Your task to perform on an android device: turn on wifi Image 0: 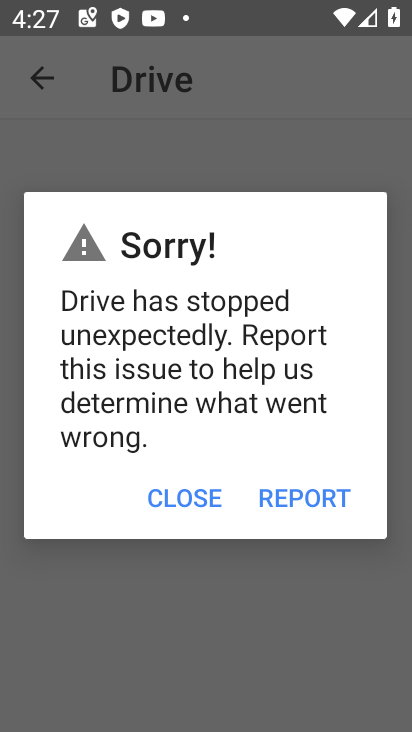
Step 0: press home button
Your task to perform on an android device: turn on wifi Image 1: 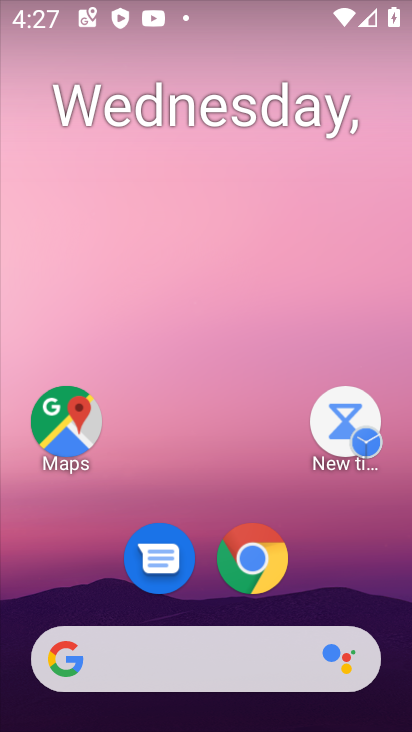
Step 1: drag from (337, 496) to (285, 160)
Your task to perform on an android device: turn on wifi Image 2: 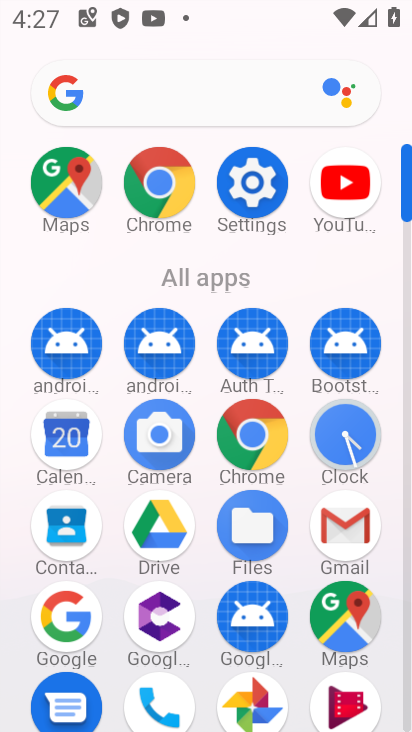
Step 2: click (248, 190)
Your task to perform on an android device: turn on wifi Image 3: 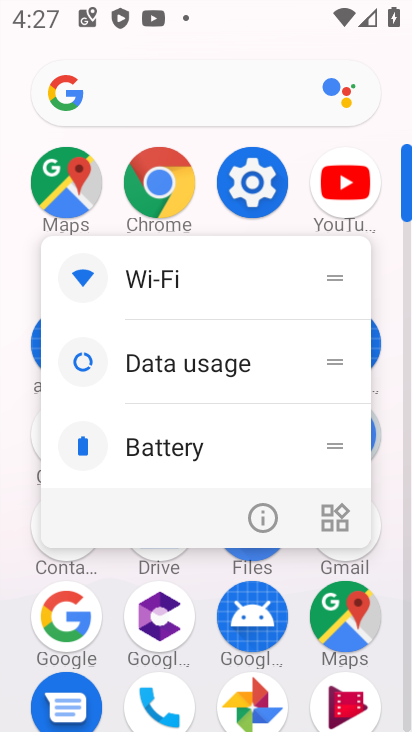
Step 3: click (246, 191)
Your task to perform on an android device: turn on wifi Image 4: 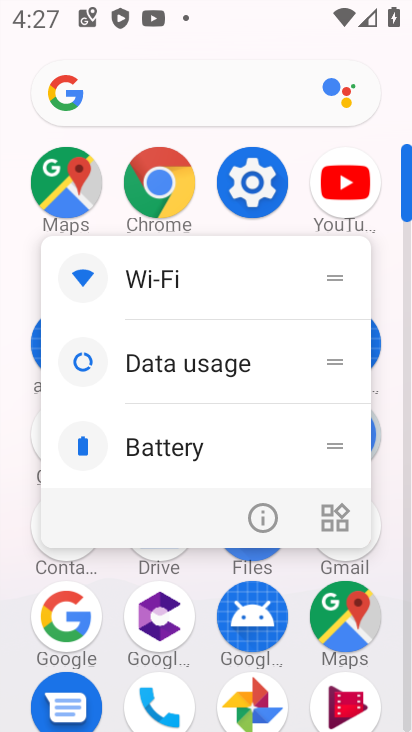
Step 4: click (257, 169)
Your task to perform on an android device: turn on wifi Image 5: 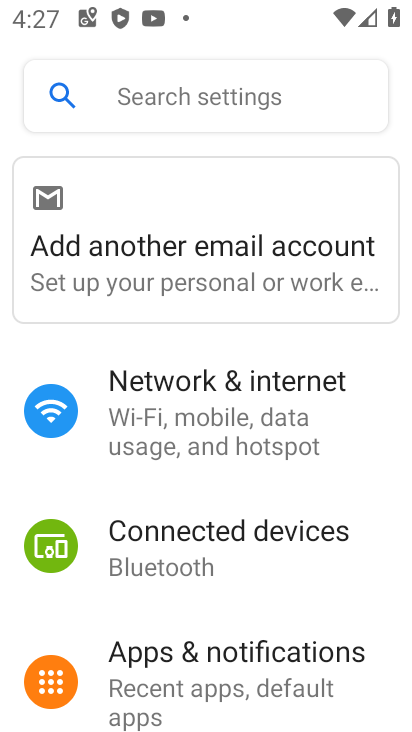
Step 5: click (281, 428)
Your task to perform on an android device: turn on wifi Image 6: 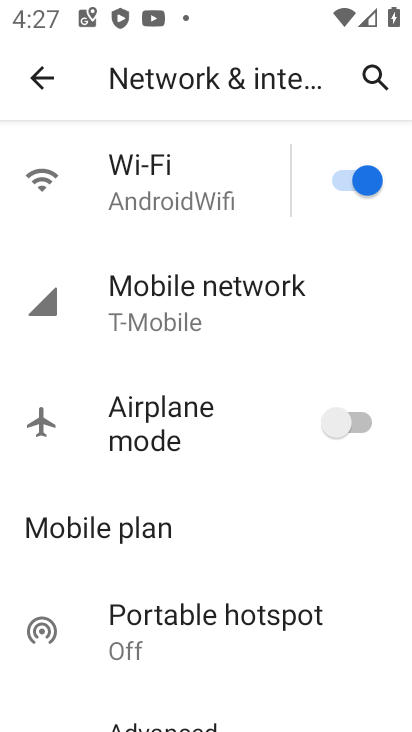
Step 6: task complete